Your task to perform on an android device: turn on the 24-hour format for clock Image 0: 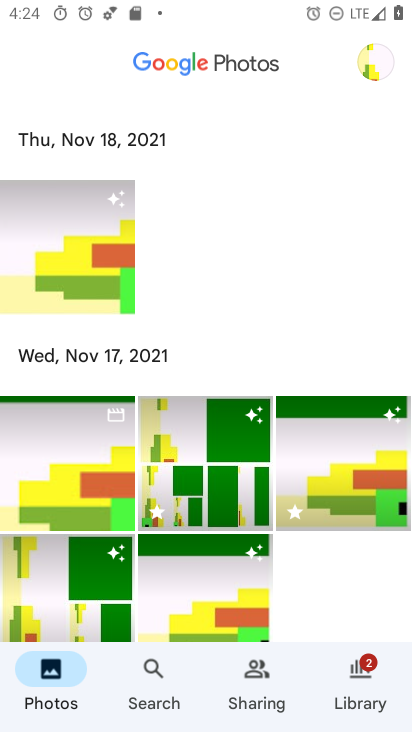
Step 0: press home button
Your task to perform on an android device: turn on the 24-hour format for clock Image 1: 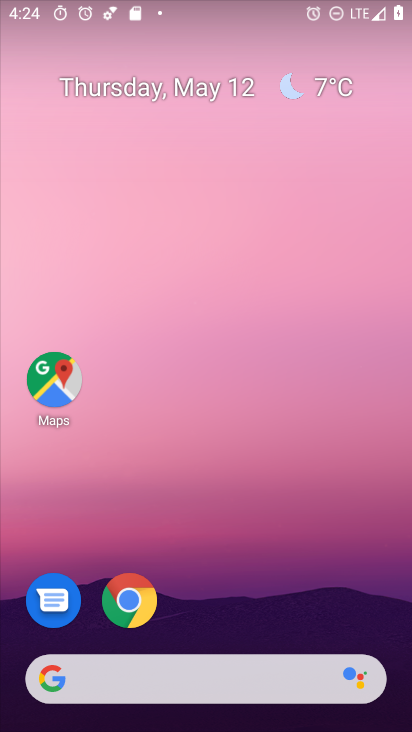
Step 1: drag from (234, 728) to (221, 280)
Your task to perform on an android device: turn on the 24-hour format for clock Image 2: 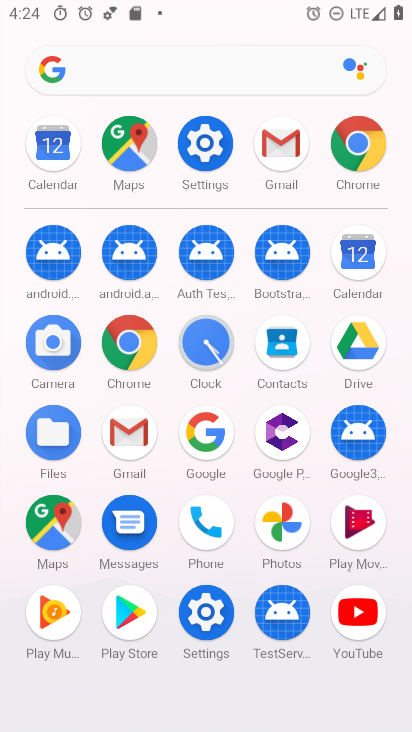
Step 2: click (210, 341)
Your task to perform on an android device: turn on the 24-hour format for clock Image 3: 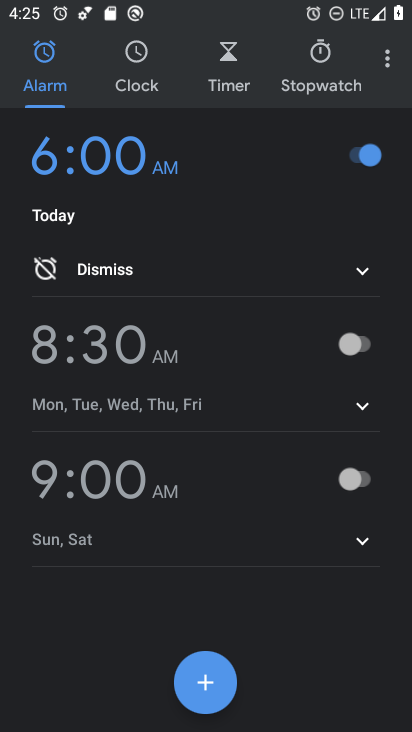
Step 3: click (389, 64)
Your task to perform on an android device: turn on the 24-hour format for clock Image 4: 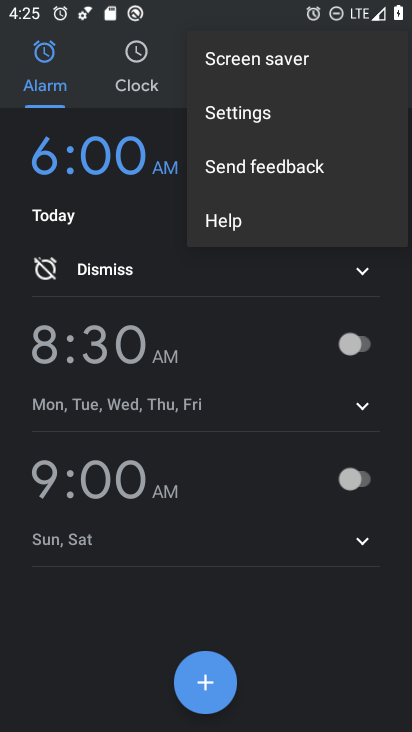
Step 4: click (237, 109)
Your task to perform on an android device: turn on the 24-hour format for clock Image 5: 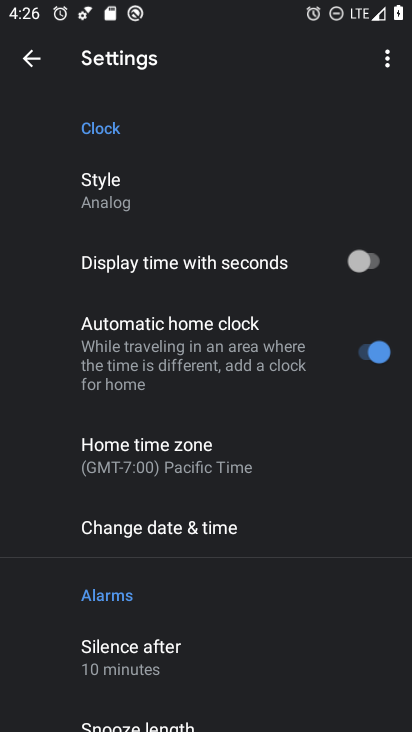
Step 5: click (150, 526)
Your task to perform on an android device: turn on the 24-hour format for clock Image 6: 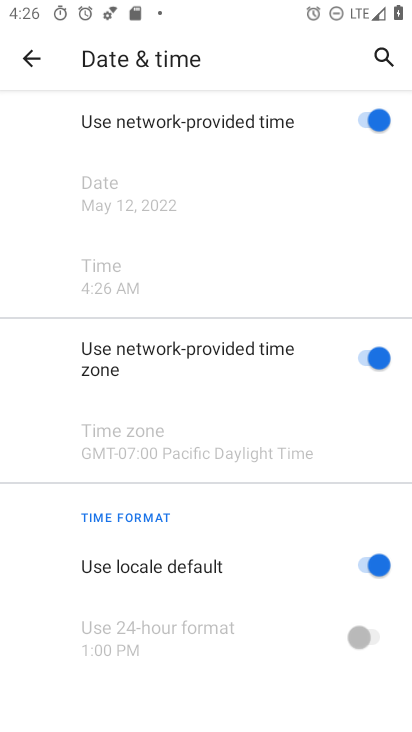
Step 6: drag from (168, 668) to (168, 424)
Your task to perform on an android device: turn on the 24-hour format for clock Image 7: 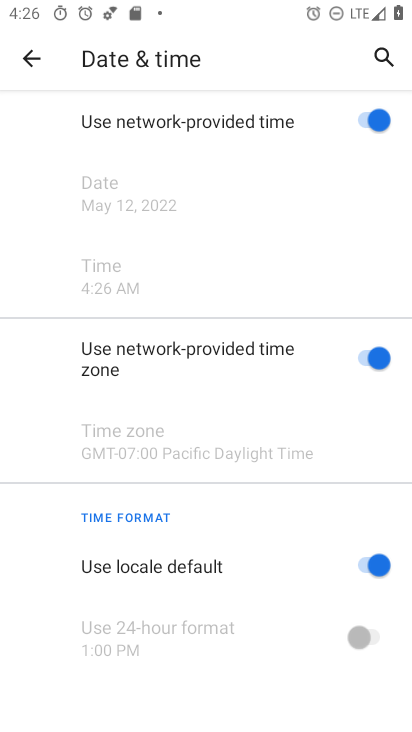
Step 7: click (363, 565)
Your task to perform on an android device: turn on the 24-hour format for clock Image 8: 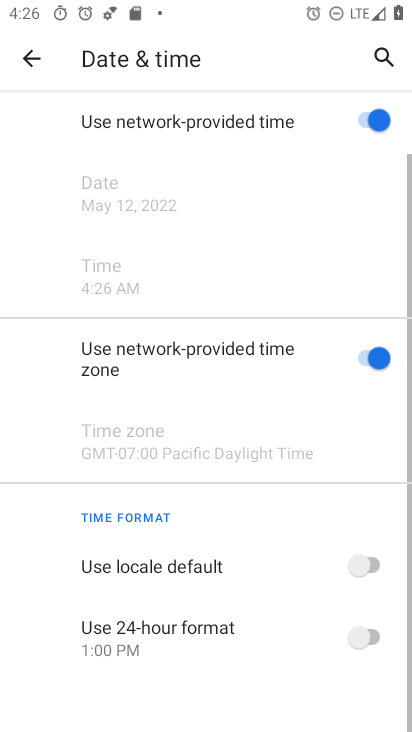
Step 8: click (378, 641)
Your task to perform on an android device: turn on the 24-hour format for clock Image 9: 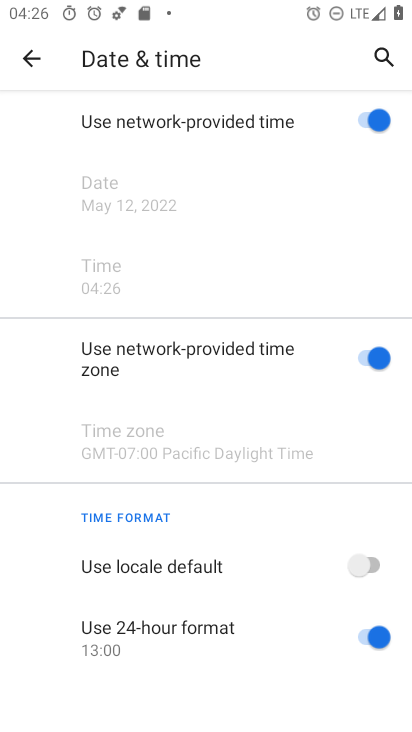
Step 9: task complete